Your task to perform on an android device: Open internet settings Image 0: 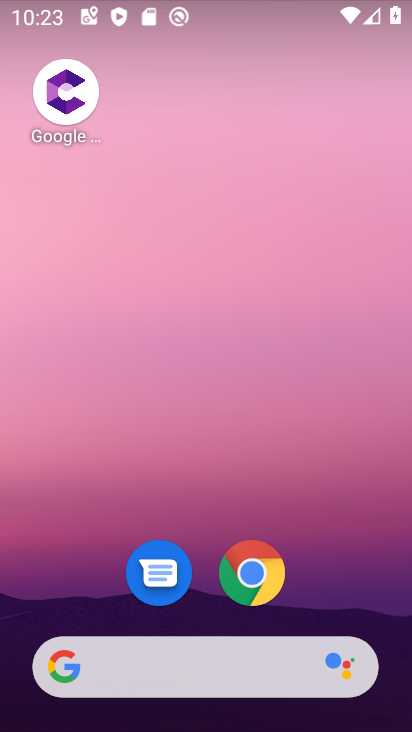
Step 0: drag from (155, 662) to (116, 88)
Your task to perform on an android device: Open internet settings Image 1: 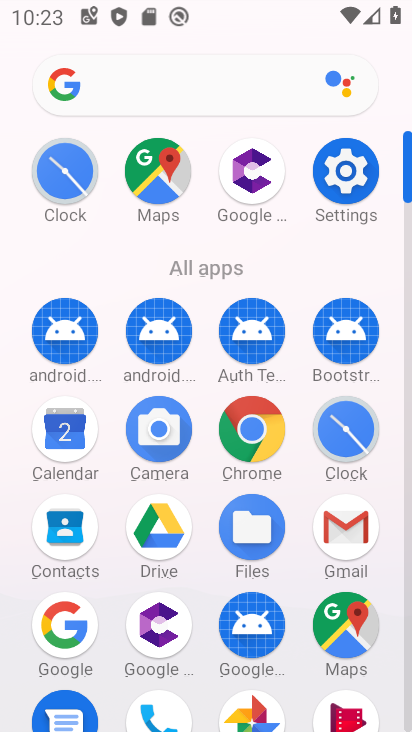
Step 1: click (346, 167)
Your task to perform on an android device: Open internet settings Image 2: 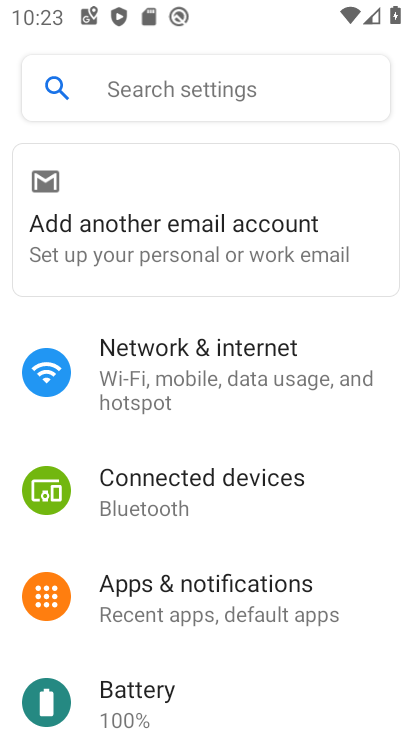
Step 2: click (220, 377)
Your task to perform on an android device: Open internet settings Image 3: 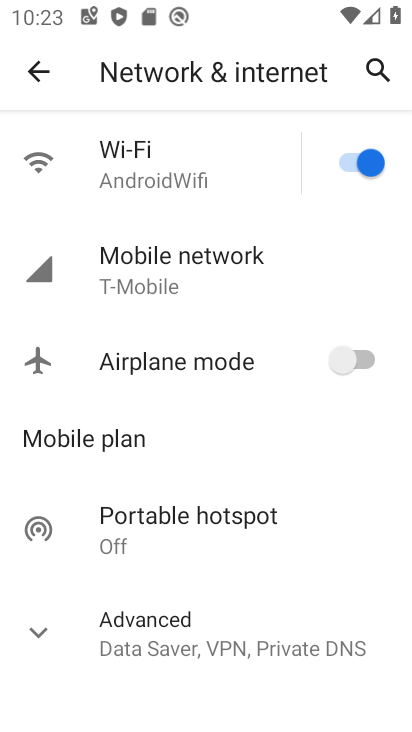
Step 3: task complete